Your task to perform on an android device: turn off smart reply in the gmail app Image 0: 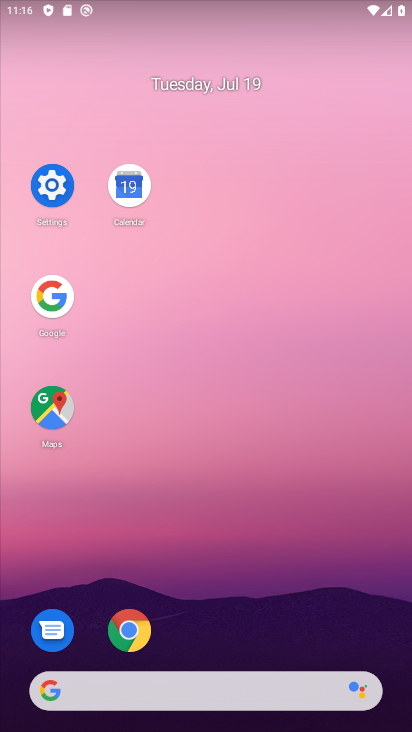
Step 0: drag from (261, 593) to (270, 173)
Your task to perform on an android device: turn off smart reply in the gmail app Image 1: 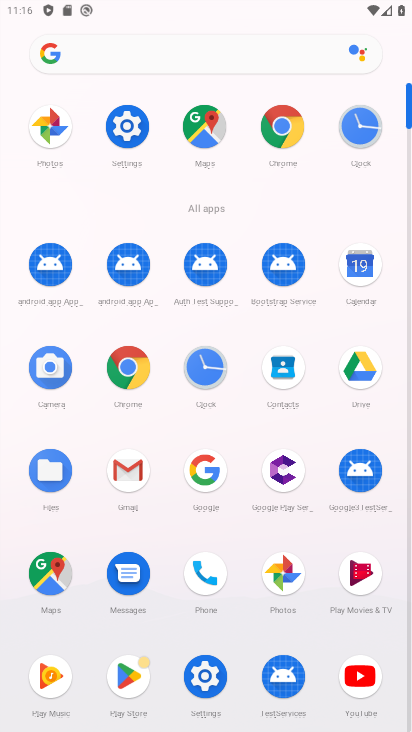
Step 1: drag from (137, 472) to (219, 176)
Your task to perform on an android device: turn off smart reply in the gmail app Image 2: 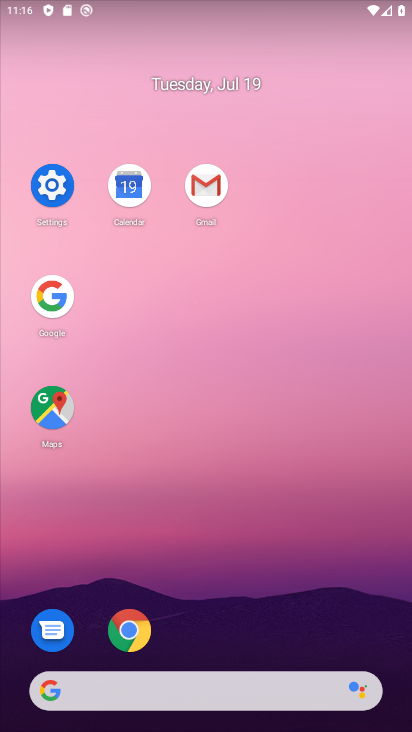
Step 2: click (212, 174)
Your task to perform on an android device: turn off smart reply in the gmail app Image 3: 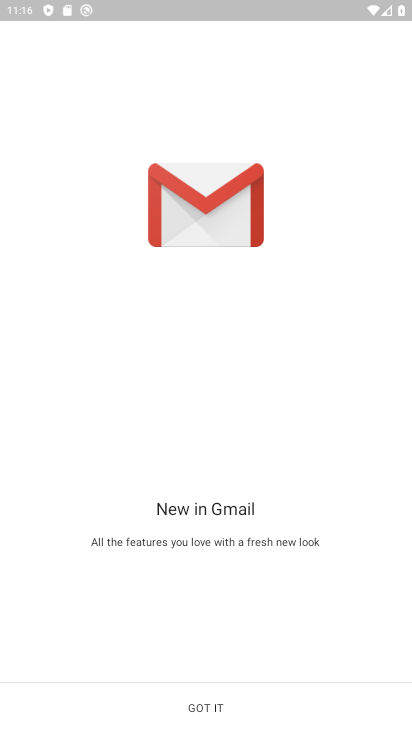
Step 3: click (247, 698)
Your task to perform on an android device: turn off smart reply in the gmail app Image 4: 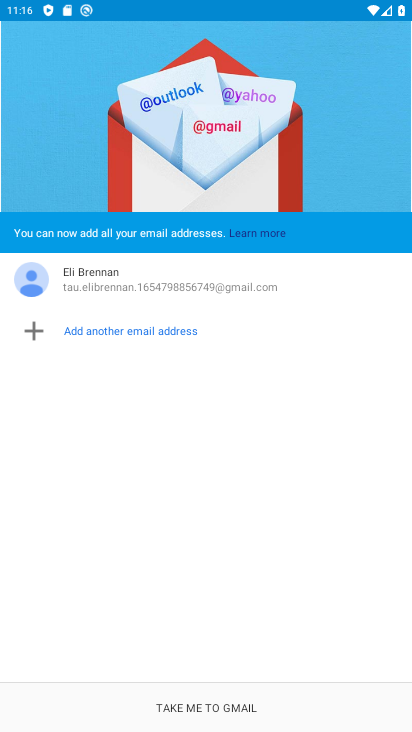
Step 4: click (247, 697)
Your task to perform on an android device: turn off smart reply in the gmail app Image 5: 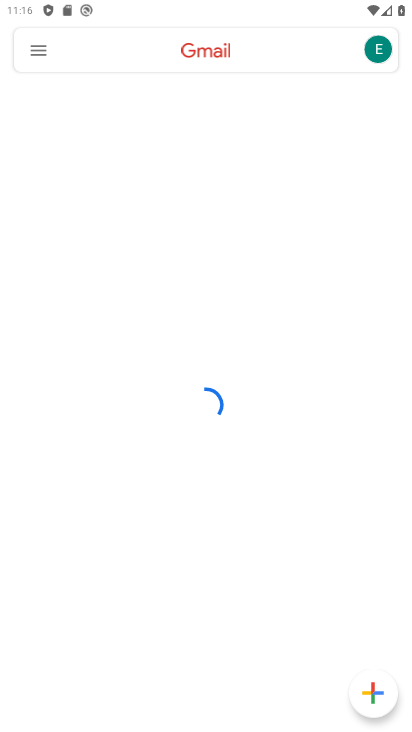
Step 5: click (40, 49)
Your task to perform on an android device: turn off smart reply in the gmail app Image 6: 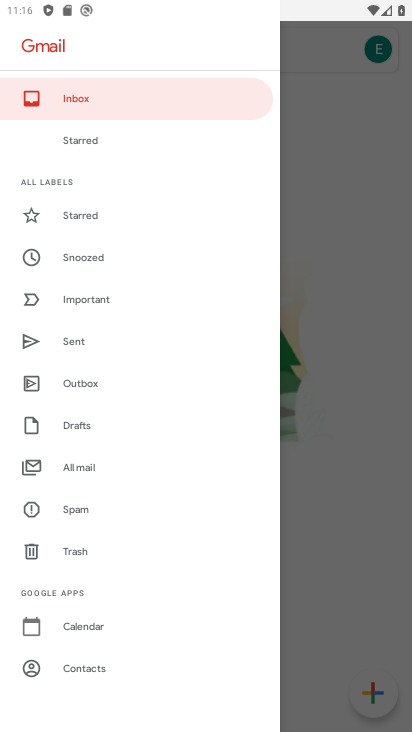
Step 6: drag from (144, 610) to (134, 311)
Your task to perform on an android device: turn off smart reply in the gmail app Image 7: 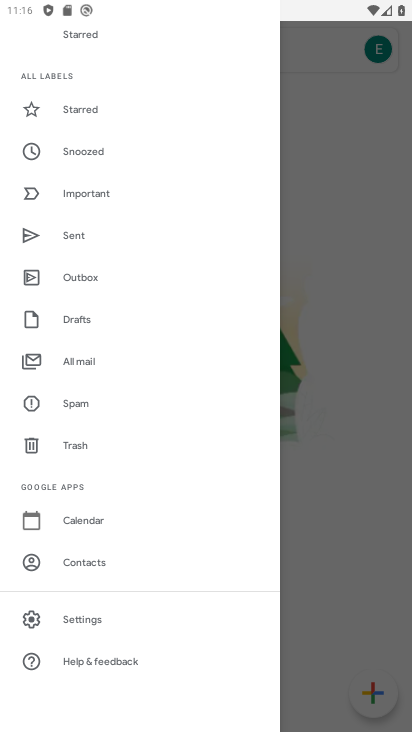
Step 7: click (114, 611)
Your task to perform on an android device: turn off smart reply in the gmail app Image 8: 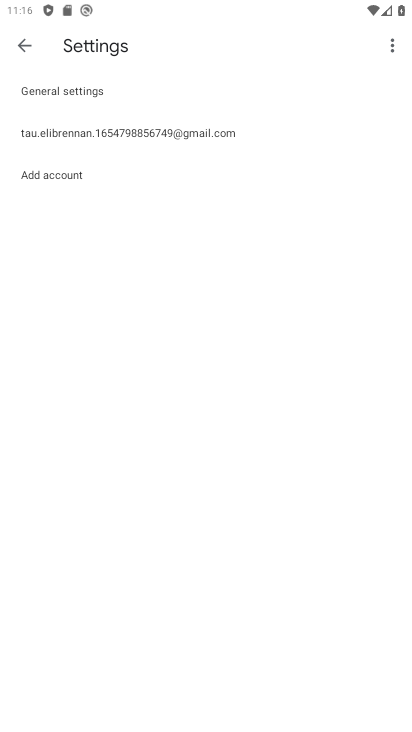
Step 8: click (115, 138)
Your task to perform on an android device: turn off smart reply in the gmail app Image 9: 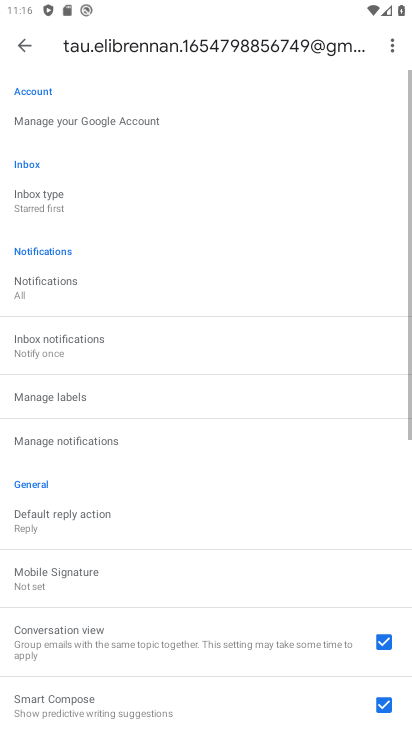
Step 9: drag from (209, 487) to (184, 137)
Your task to perform on an android device: turn off smart reply in the gmail app Image 10: 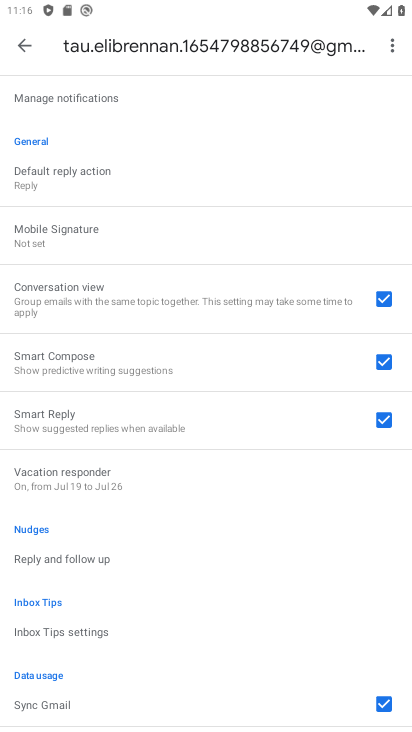
Step 10: click (378, 426)
Your task to perform on an android device: turn off smart reply in the gmail app Image 11: 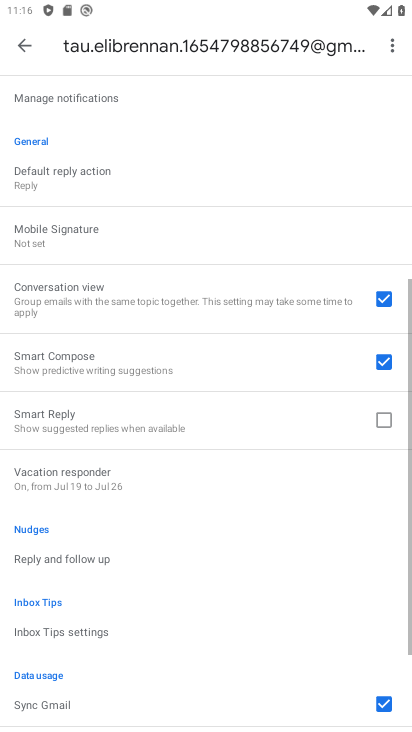
Step 11: task complete